Your task to perform on an android device: turn on showing notifications on the lock screen Image 0: 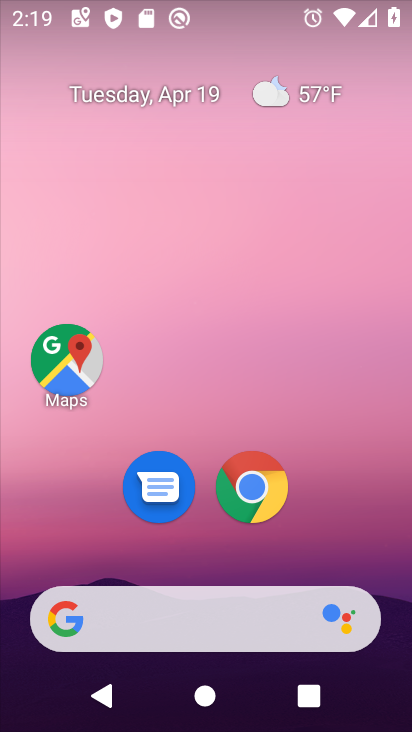
Step 0: click (174, 96)
Your task to perform on an android device: turn on showing notifications on the lock screen Image 1: 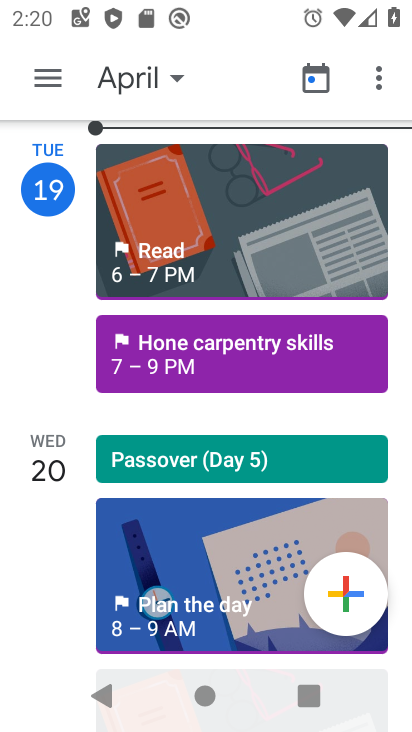
Step 1: press home button
Your task to perform on an android device: turn on showing notifications on the lock screen Image 2: 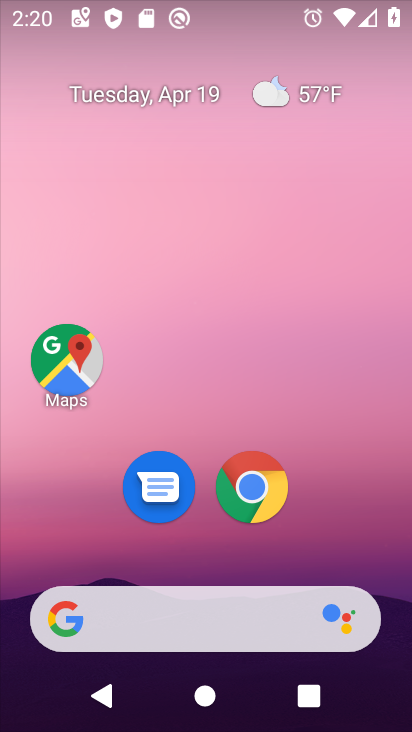
Step 2: drag from (231, 10) to (239, 561)
Your task to perform on an android device: turn on showing notifications on the lock screen Image 3: 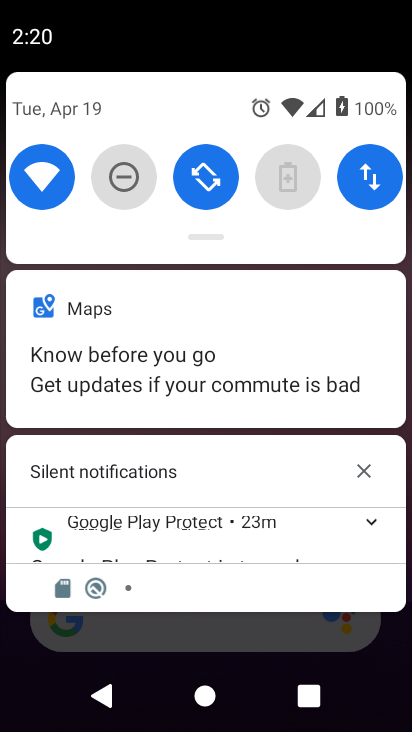
Step 3: drag from (250, 82) to (208, 715)
Your task to perform on an android device: turn on showing notifications on the lock screen Image 4: 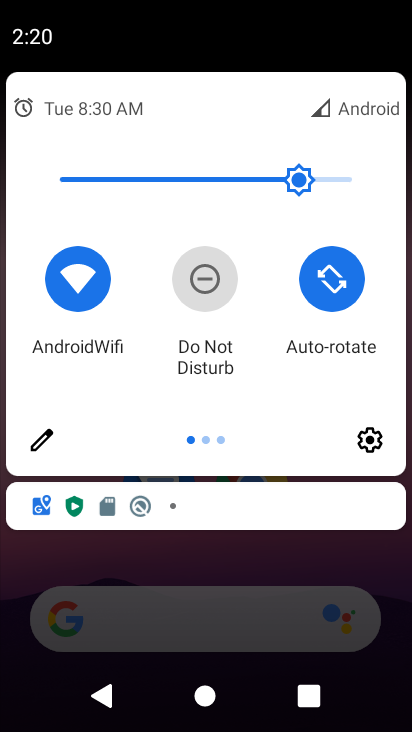
Step 4: click (364, 435)
Your task to perform on an android device: turn on showing notifications on the lock screen Image 5: 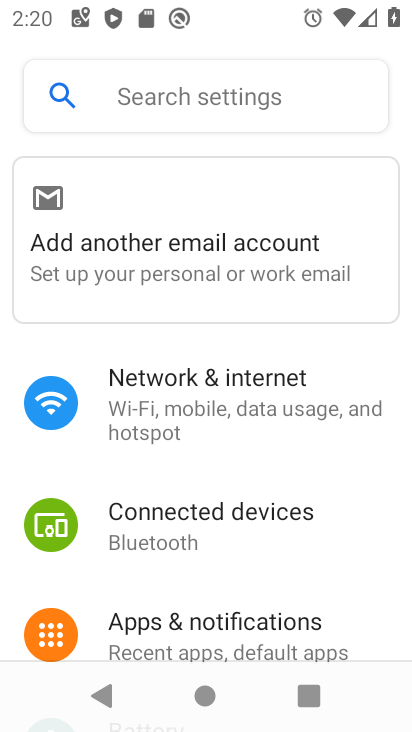
Step 5: click (172, 615)
Your task to perform on an android device: turn on showing notifications on the lock screen Image 6: 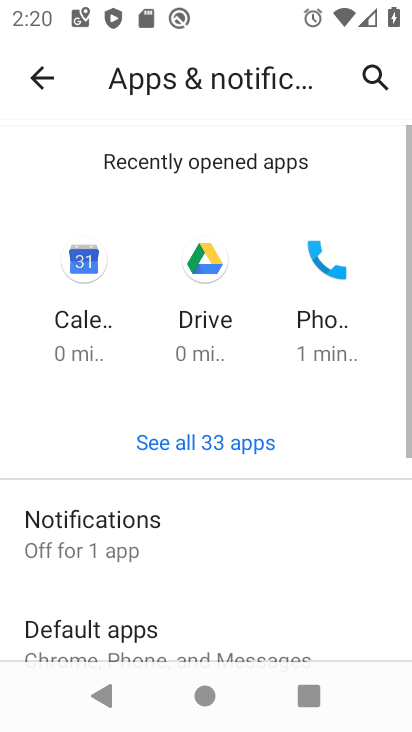
Step 6: click (68, 558)
Your task to perform on an android device: turn on showing notifications on the lock screen Image 7: 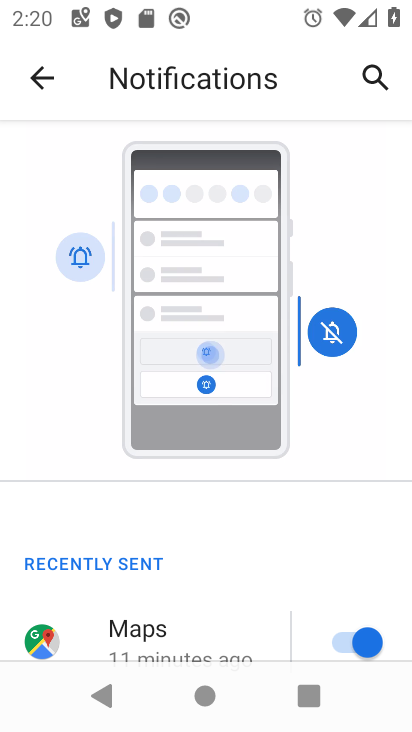
Step 7: drag from (73, 557) to (219, 75)
Your task to perform on an android device: turn on showing notifications on the lock screen Image 8: 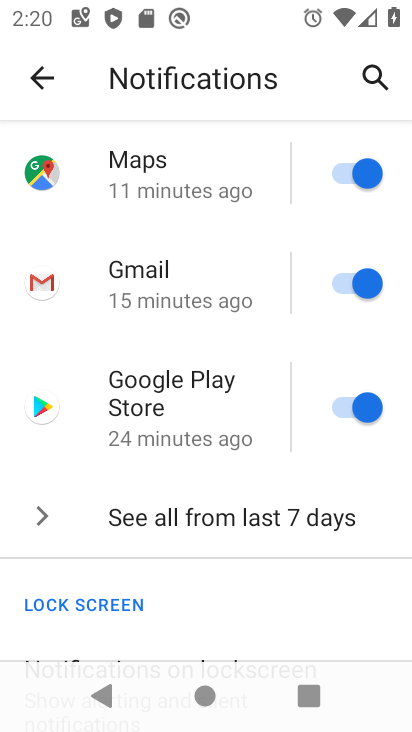
Step 8: drag from (147, 634) to (188, 248)
Your task to perform on an android device: turn on showing notifications on the lock screen Image 9: 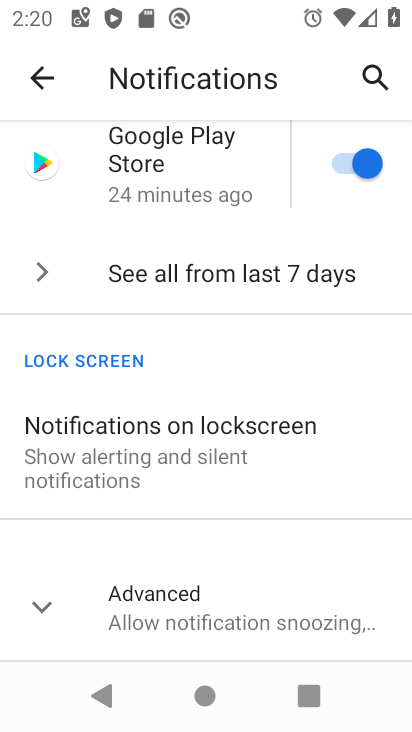
Step 9: click (172, 466)
Your task to perform on an android device: turn on showing notifications on the lock screen Image 10: 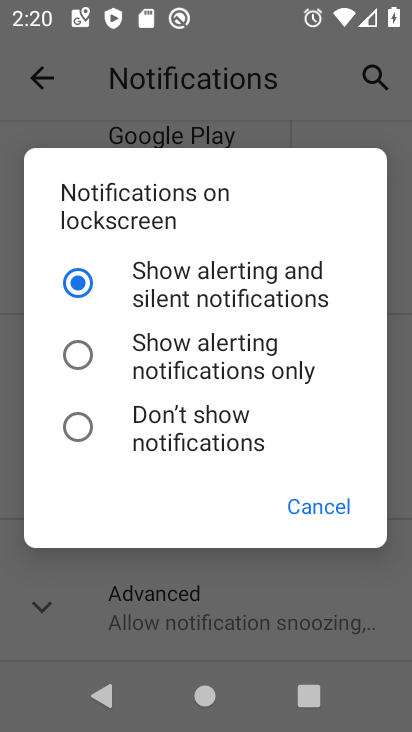
Step 10: task complete